Your task to perform on an android device: Search for Mexican restaurants on Maps Image 0: 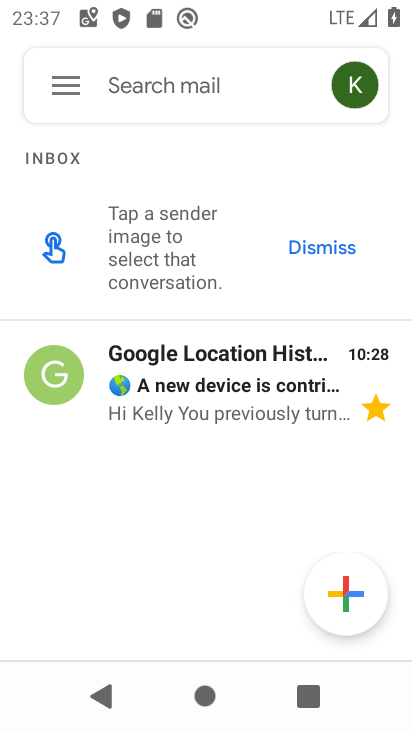
Step 0: press back button
Your task to perform on an android device: Search for Mexican restaurants on Maps Image 1: 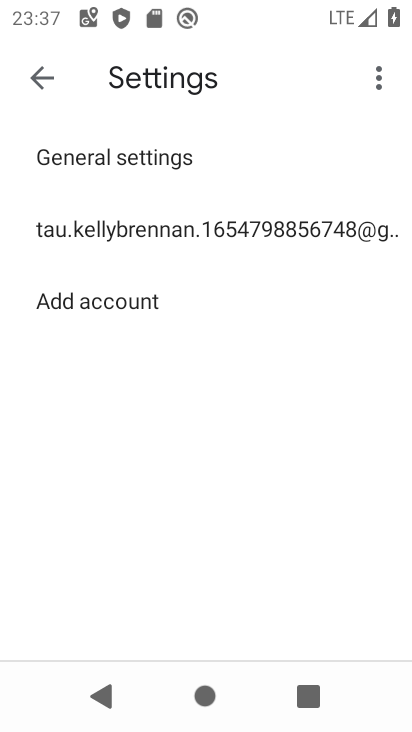
Step 1: press back button
Your task to perform on an android device: Search for Mexican restaurants on Maps Image 2: 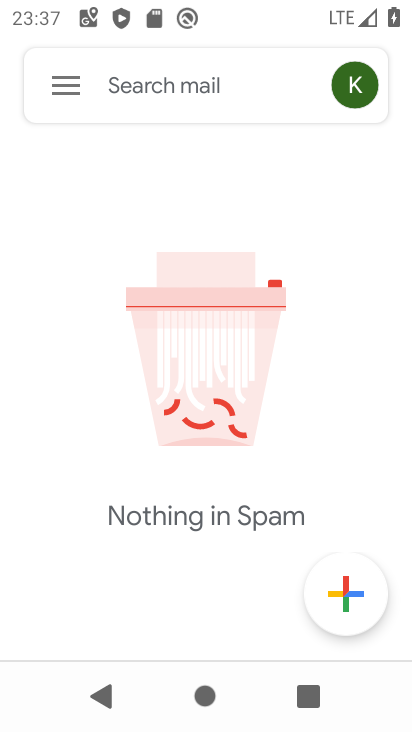
Step 2: press back button
Your task to perform on an android device: Search for Mexican restaurants on Maps Image 3: 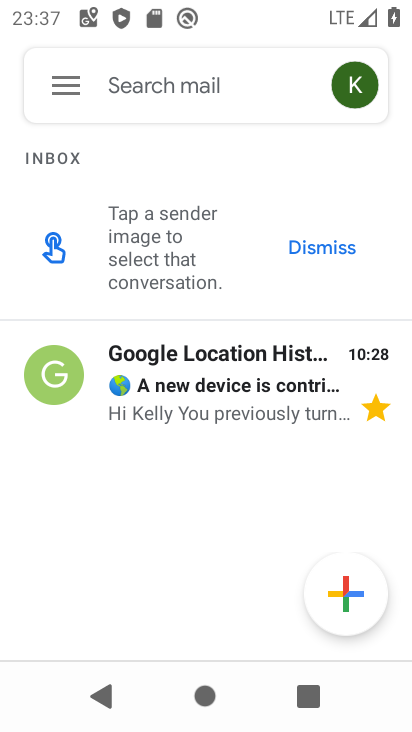
Step 3: press back button
Your task to perform on an android device: Search for Mexican restaurants on Maps Image 4: 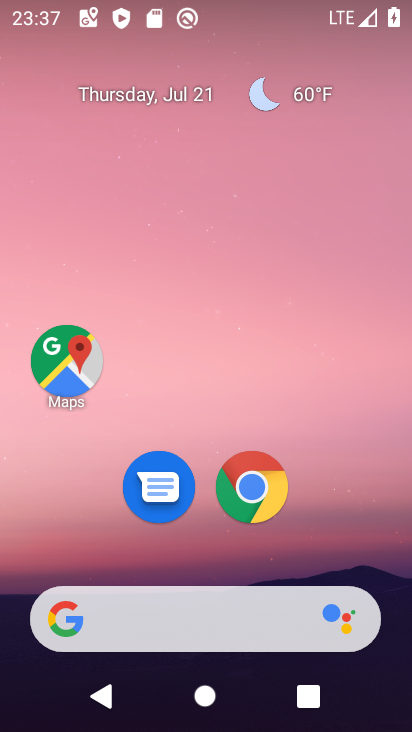
Step 4: drag from (131, 538) to (203, 120)
Your task to perform on an android device: Search for Mexican restaurants on Maps Image 5: 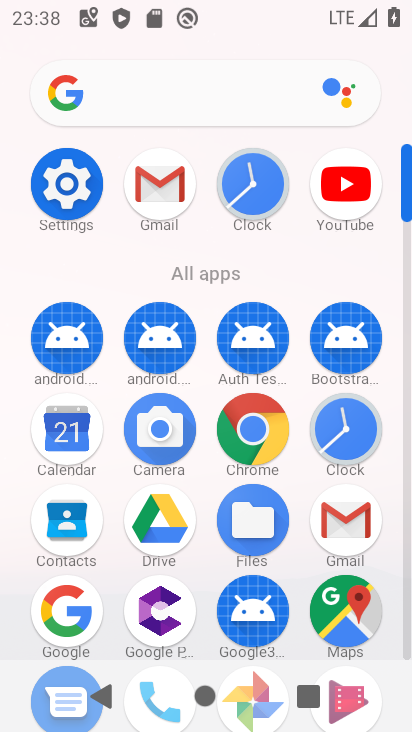
Step 5: click (354, 615)
Your task to perform on an android device: Search for Mexican restaurants on Maps Image 6: 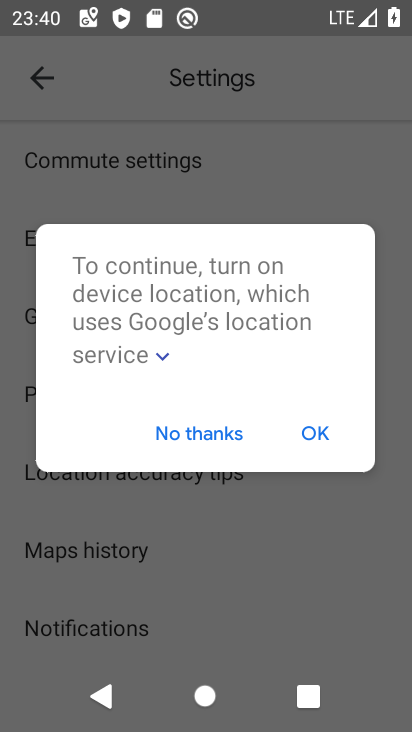
Step 6: click (200, 427)
Your task to perform on an android device: Search for Mexican restaurants on Maps Image 7: 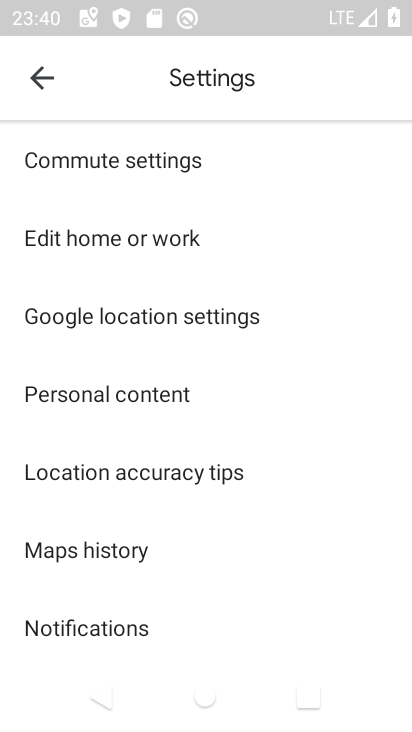
Step 7: press back button
Your task to perform on an android device: Search for Mexican restaurants on Maps Image 8: 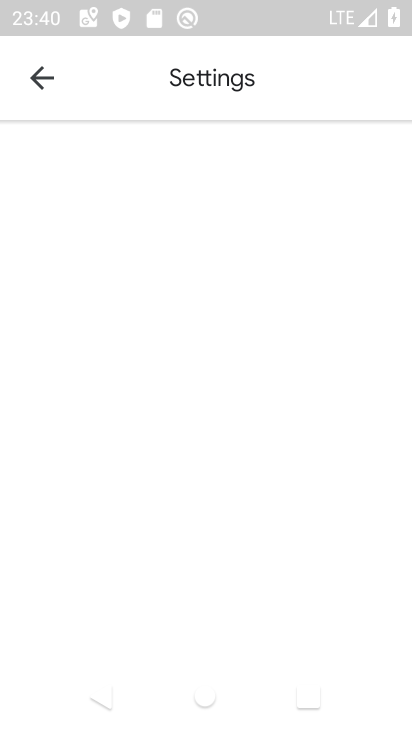
Step 8: press back button
Your task to perform on an android device: Search for Mexican restaurants on Maps Image 9: 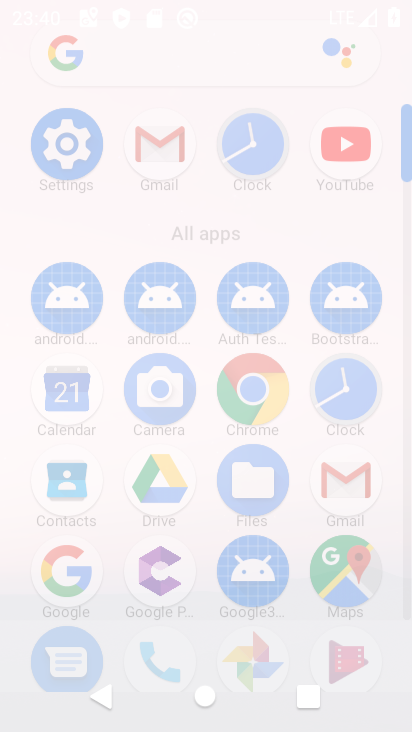
Step 9: press home button
Your task to perform on an android device: Search for Mexican restaurants on Maps Image 10: 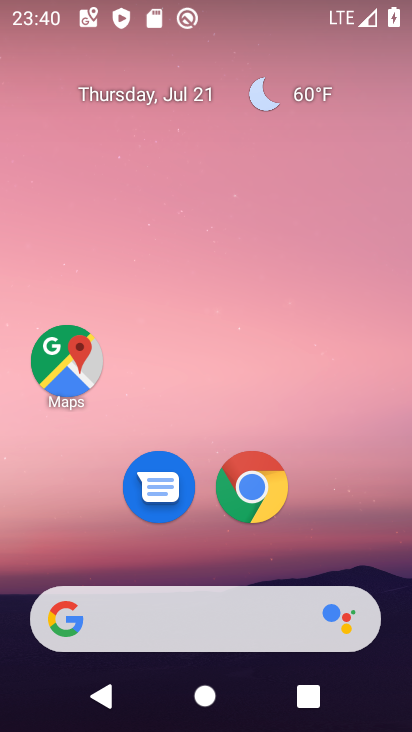
Step 10: drag from (231, 527) to (268, 37)
Your task to perform on an android device: Search for Mexican restaurants on Maps Image 11: 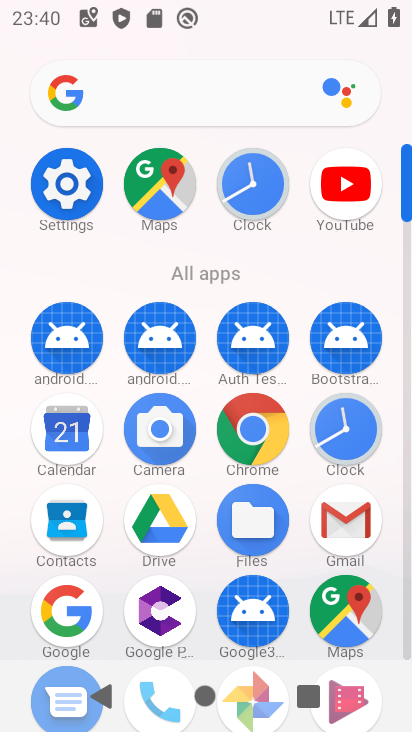
Step 11: click (146, 188)
Your task to perform on an android device: Search for Mexican restaurants on Maps Image 12: 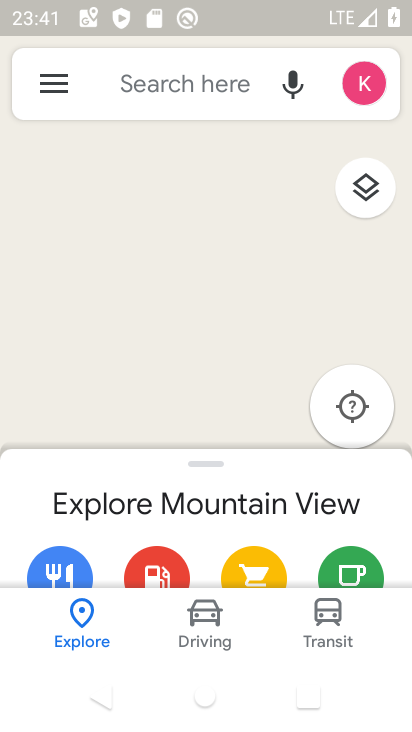
Step 12: click (167, 87)
Your task to perform on an android device: Search for Mexican restaurants on Maps Image 13: 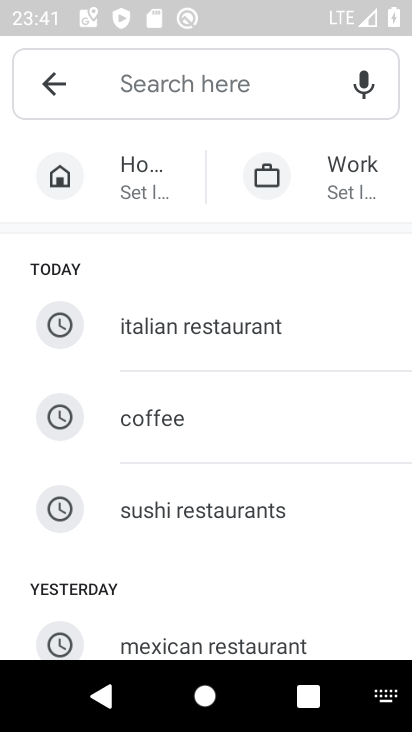
Step 13: click (159, 627)
Your task to perform on an android device: Search for Mexican restaurants on Maps Image 14: 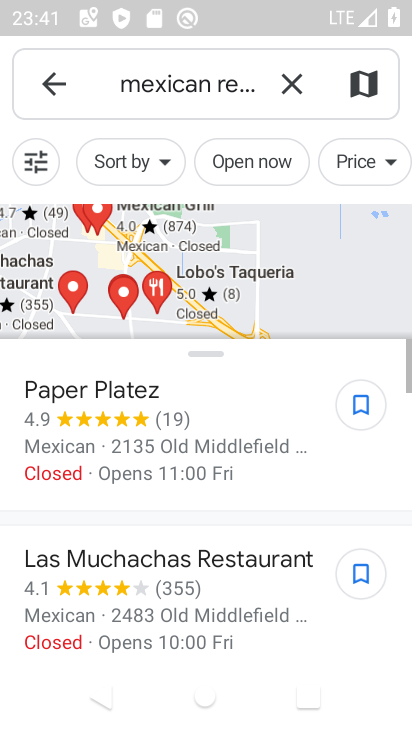
Step 14: task complete